Your task to perform on an android device: refresh tabs in the chrome app Image 0: 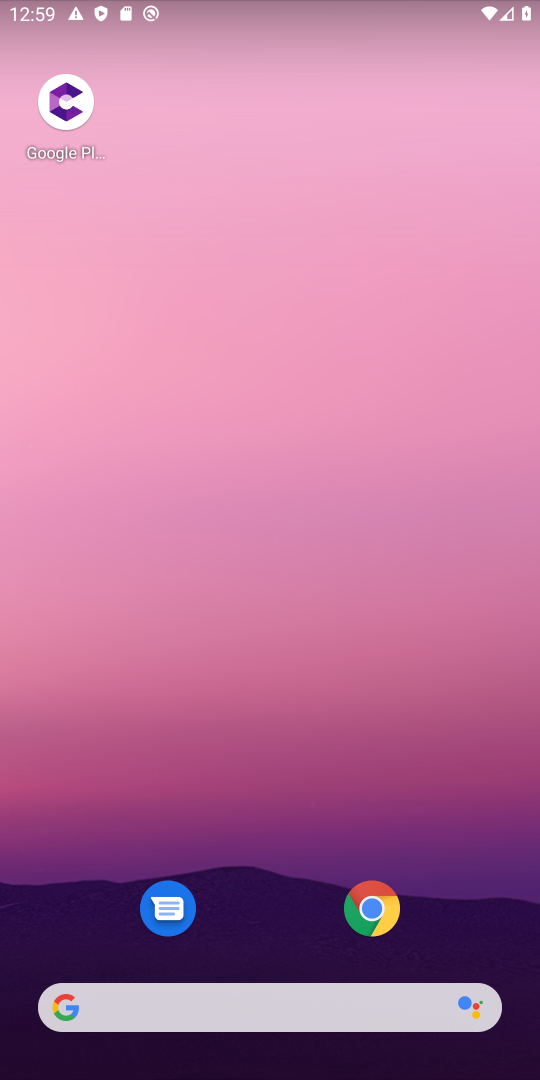
Step 0: click (376, 917)
Your task to perform on an android device: refresh tabs in the chrome app Image 1: 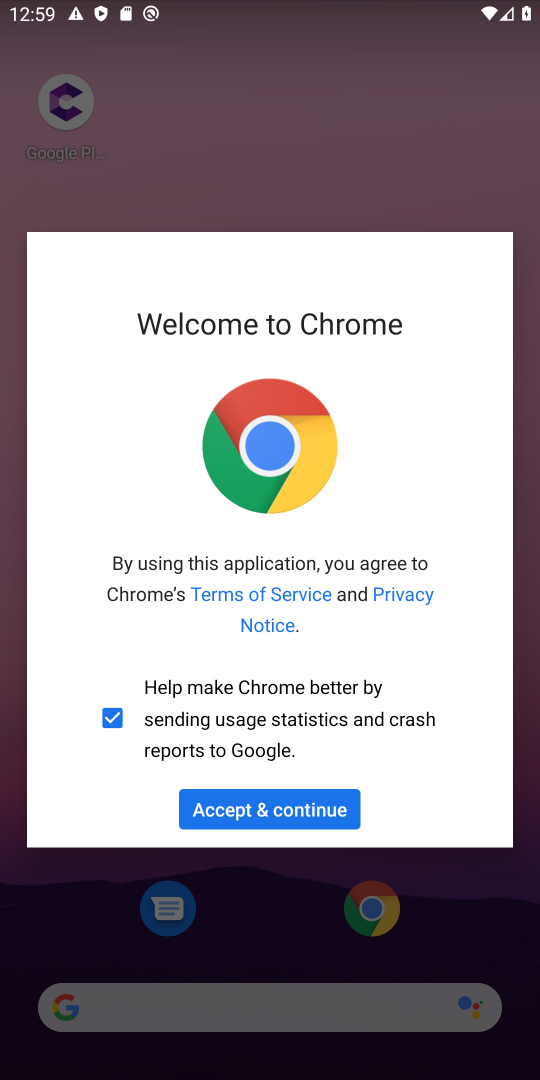
Step 1: click (299, 813)
Your task to perform on an android device: refresh tabs in the chrome app Image 2: 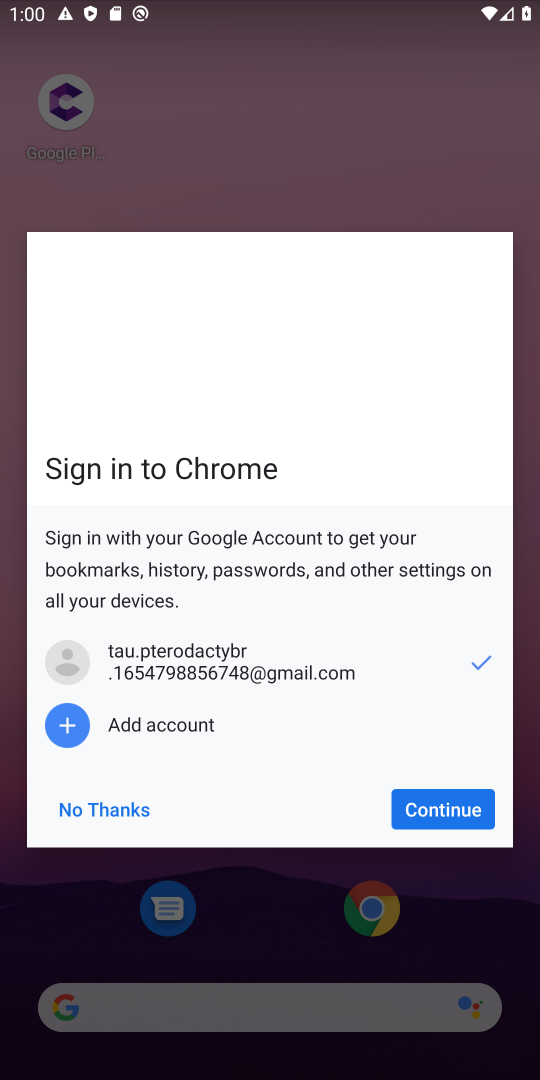
Step 2: click (425, 797)
Your task to perform on an android device: refresh tabs in the chrome app Image 3: 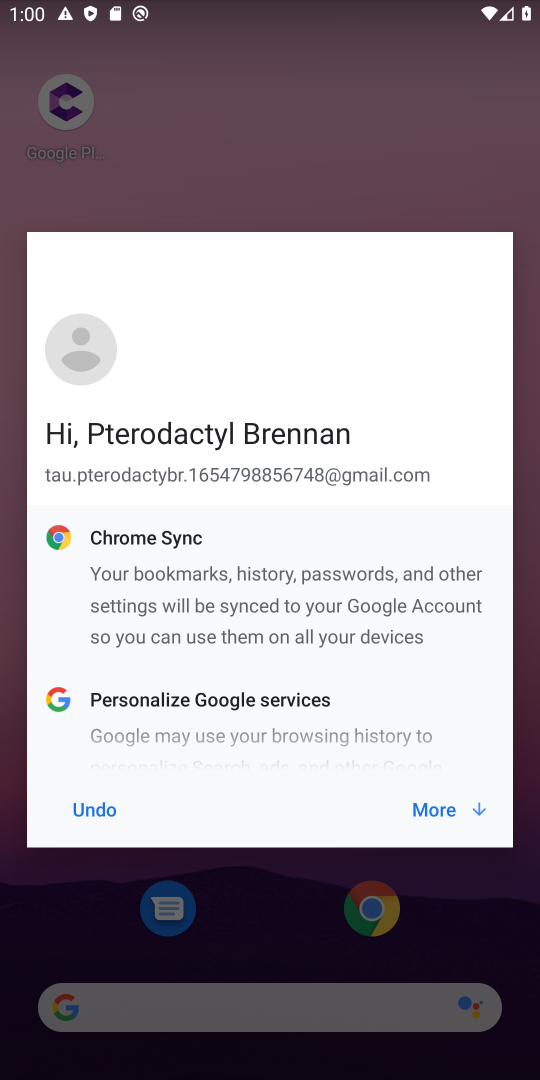
Step 3: click (429, 819)
Your task to perform on an android device: refresh tabs in the chrome app Image 4: 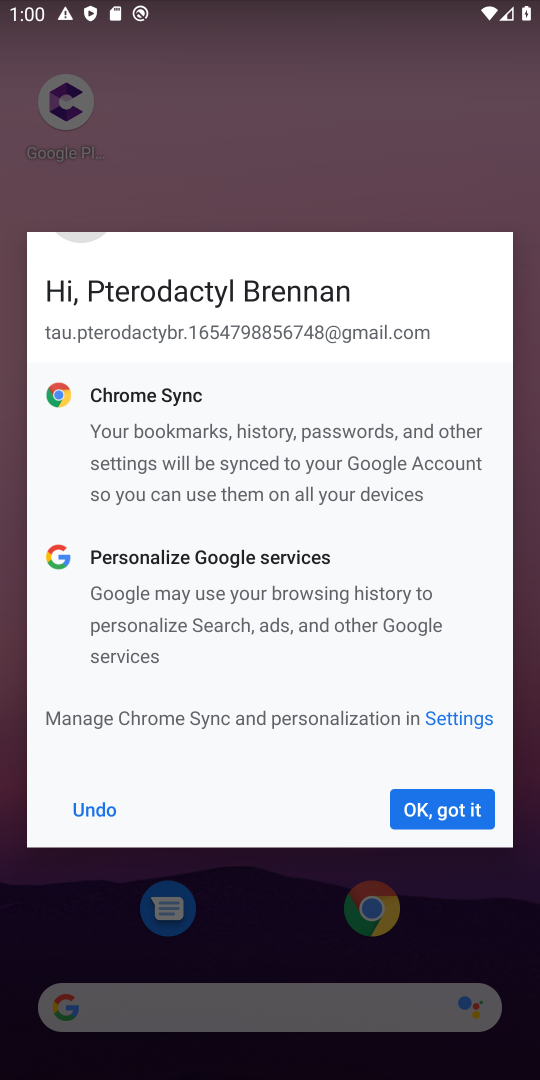
Step 4: click (446, 819)
Your task to perform on an android device: refresh tabs in the chrome app Image 5: 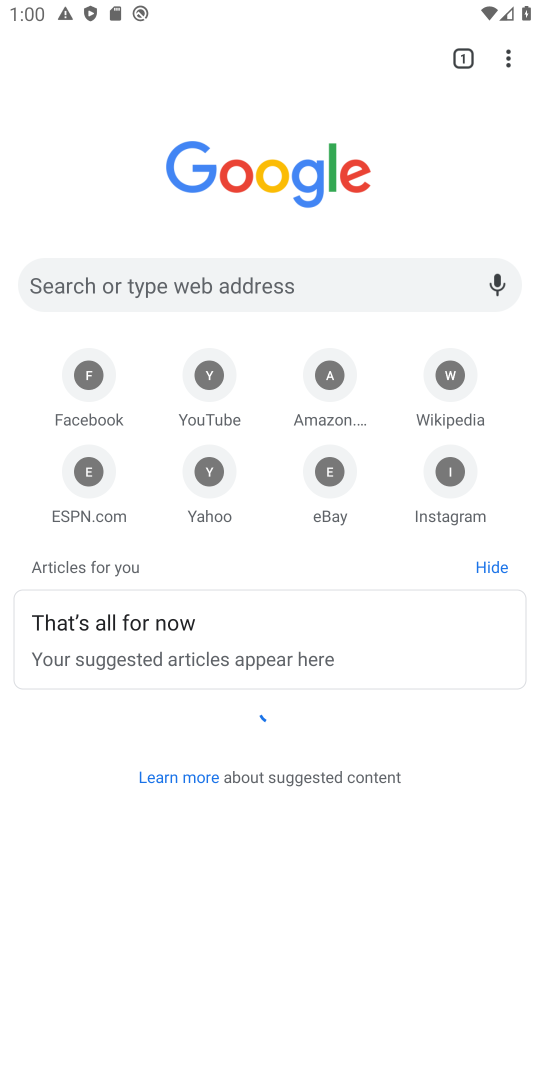
Step 5: click (510, 50)
Your task to perform on an android device: refresh tabs in the chrome app Image 6: 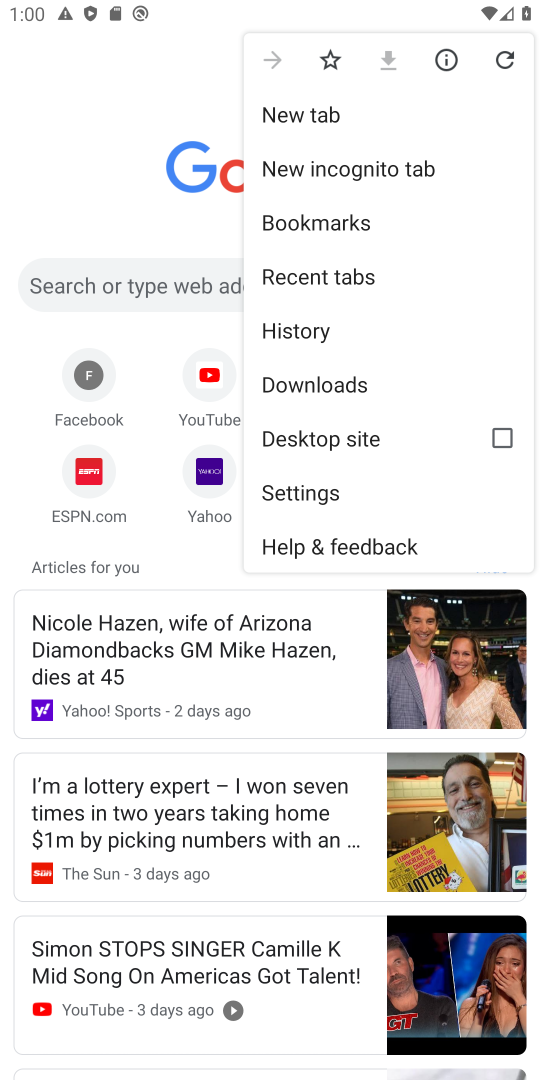
Step 6: click (513, 56)
Your task to perform on an android device: refresh tabs in the chrome app Image 7: 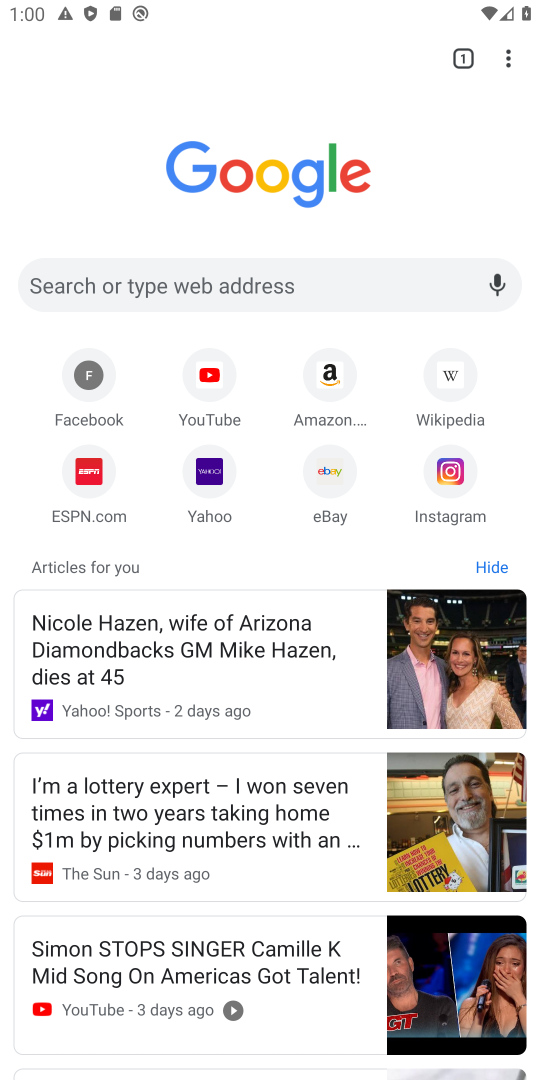
Step 7: task complete